Your task to perform on an android device: Clear all items from cart on costco. Search for "alienware aurora" on costco, select the first entry, add it to the cart, then select checkout. Image 0: 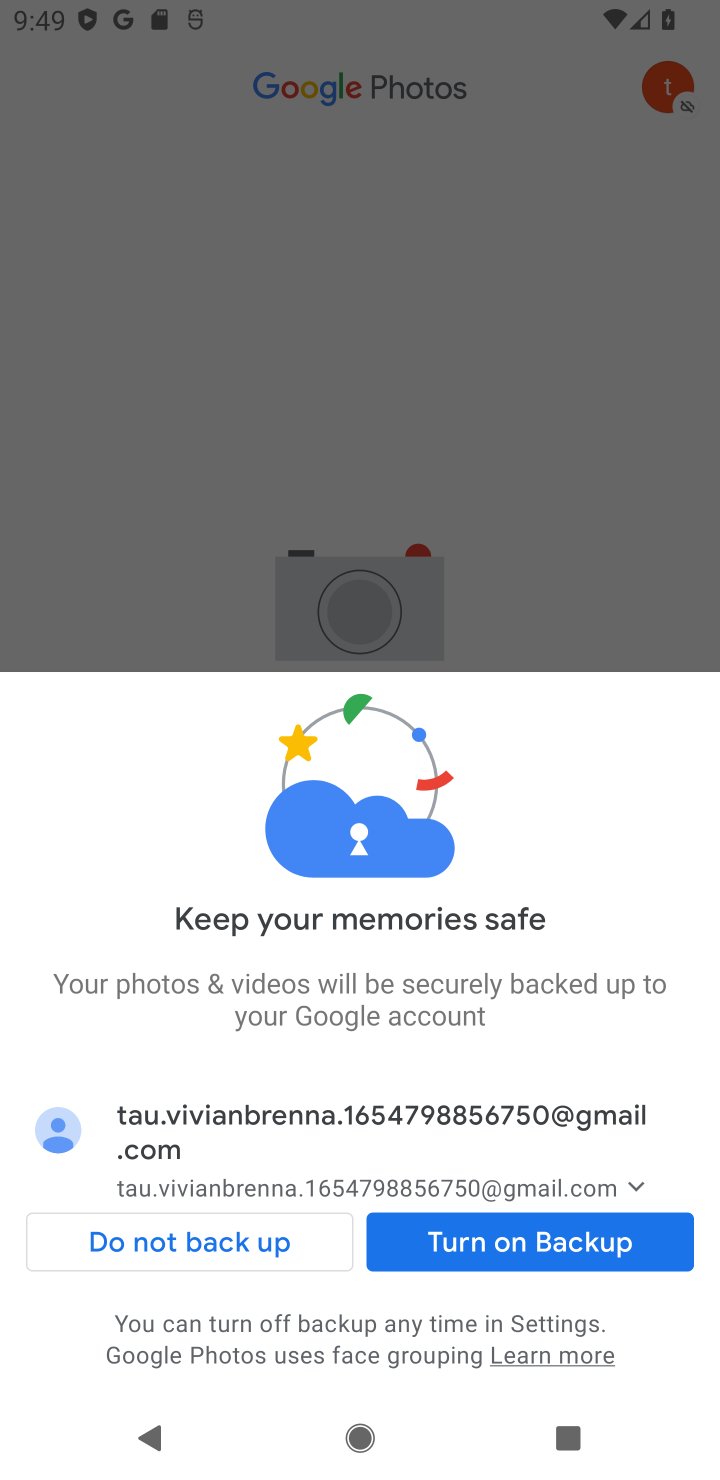
Step 0: press home button
Your task to perform on an android device: Clear all items from cart on costco. Search for "alienware aurora" on costco, select the first entry, add it to the cart, then select checkout. Image 1: 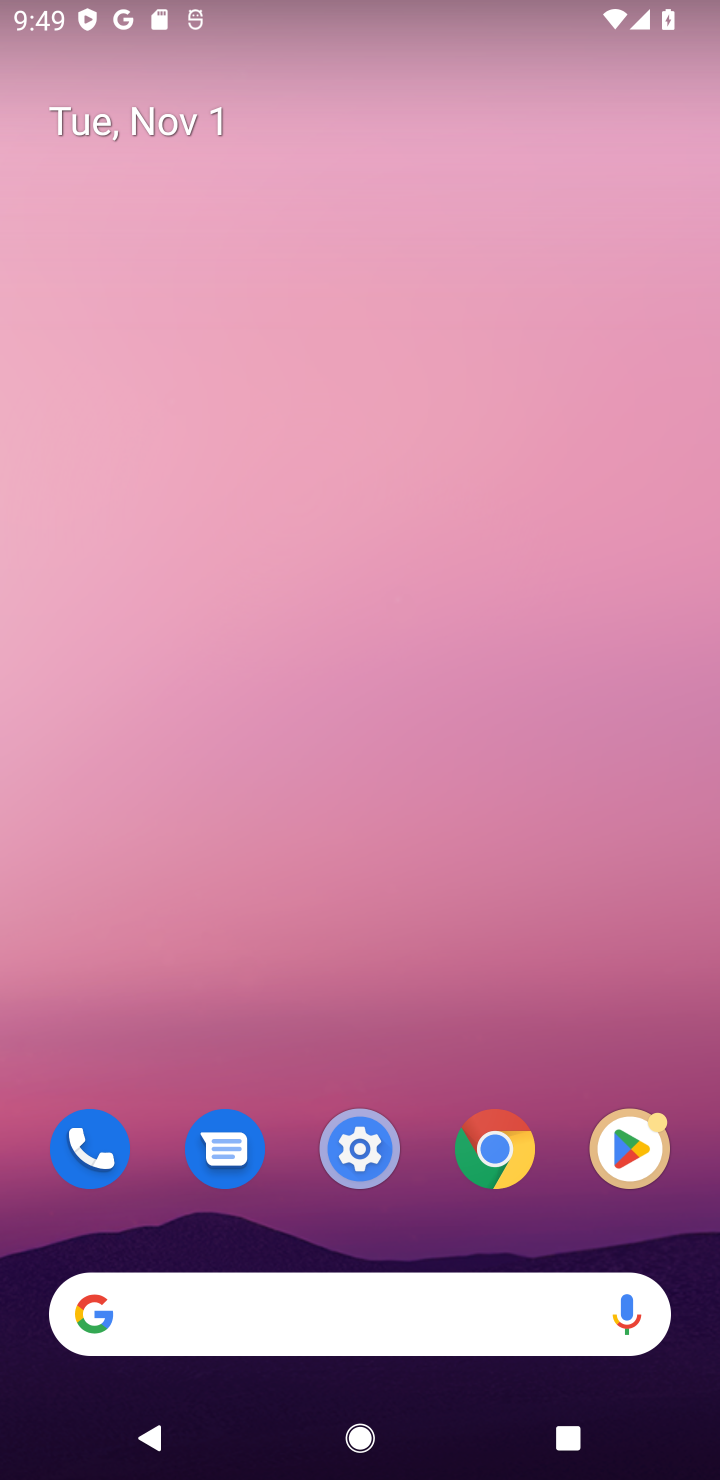
Step 1: click (159, 1311)
Your task to perform on an android device: Clear all items from cart on costco. Search for "alienware aurora" on costco, select the first entry, add it to the cart, then select checkout. Image 2: 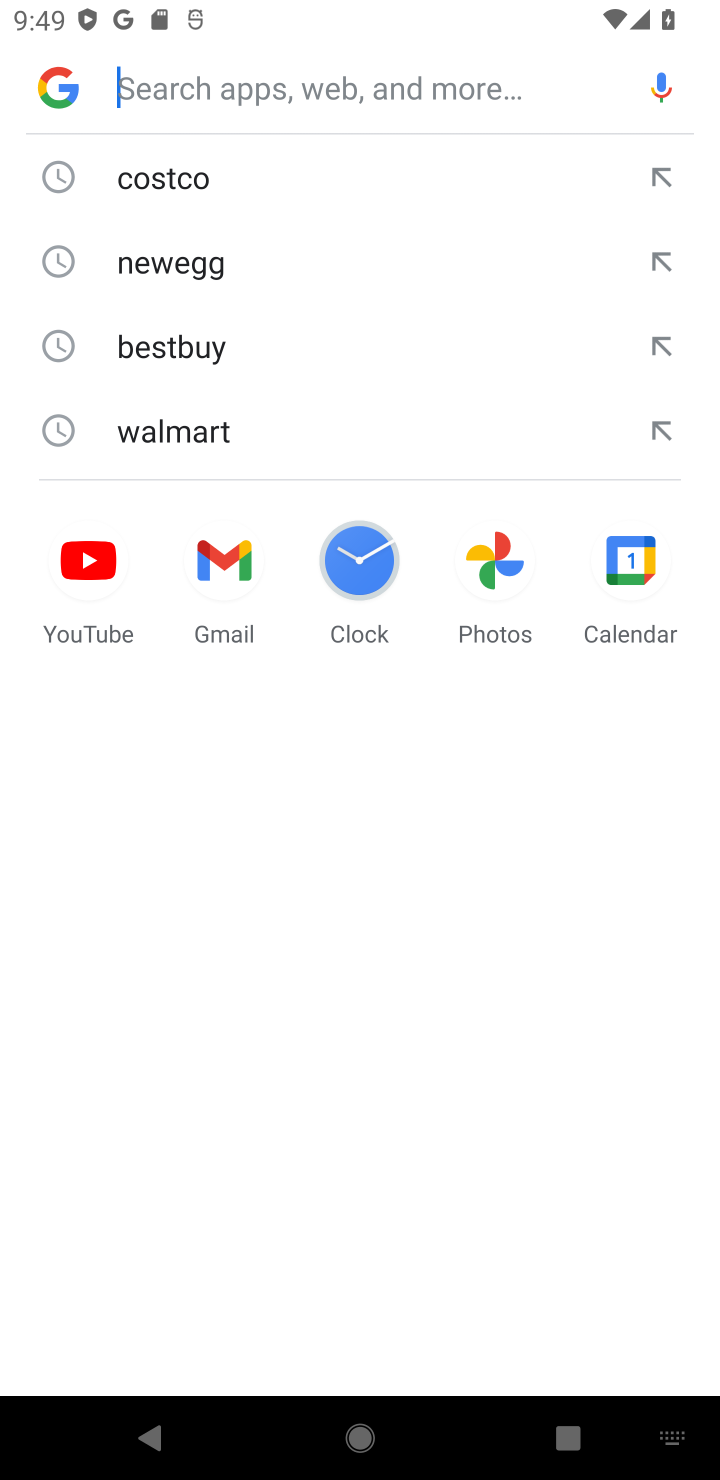
Step 2: type " costco"
Your task to perform on an android device: Clear all items from cart on costco. Search for "alienware aurora" on costco, select the first entry, add it to the cart, then select checkout. Image 3: 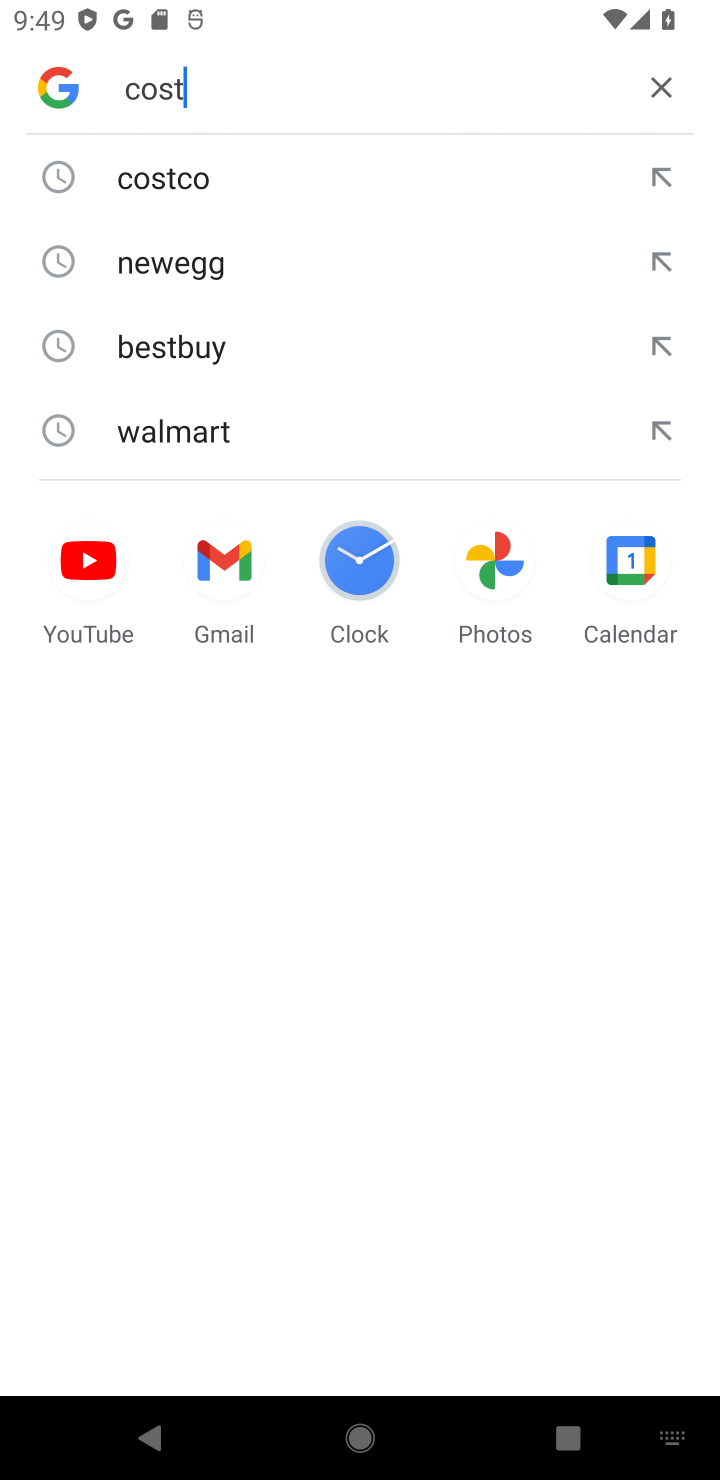
Step 3: press enter
Your task to perform on an android device: Clear all items from cart on costco. Search for "alienware aurora" on costco, select the first entry, add it to the cart, then select checkout. Image 4: 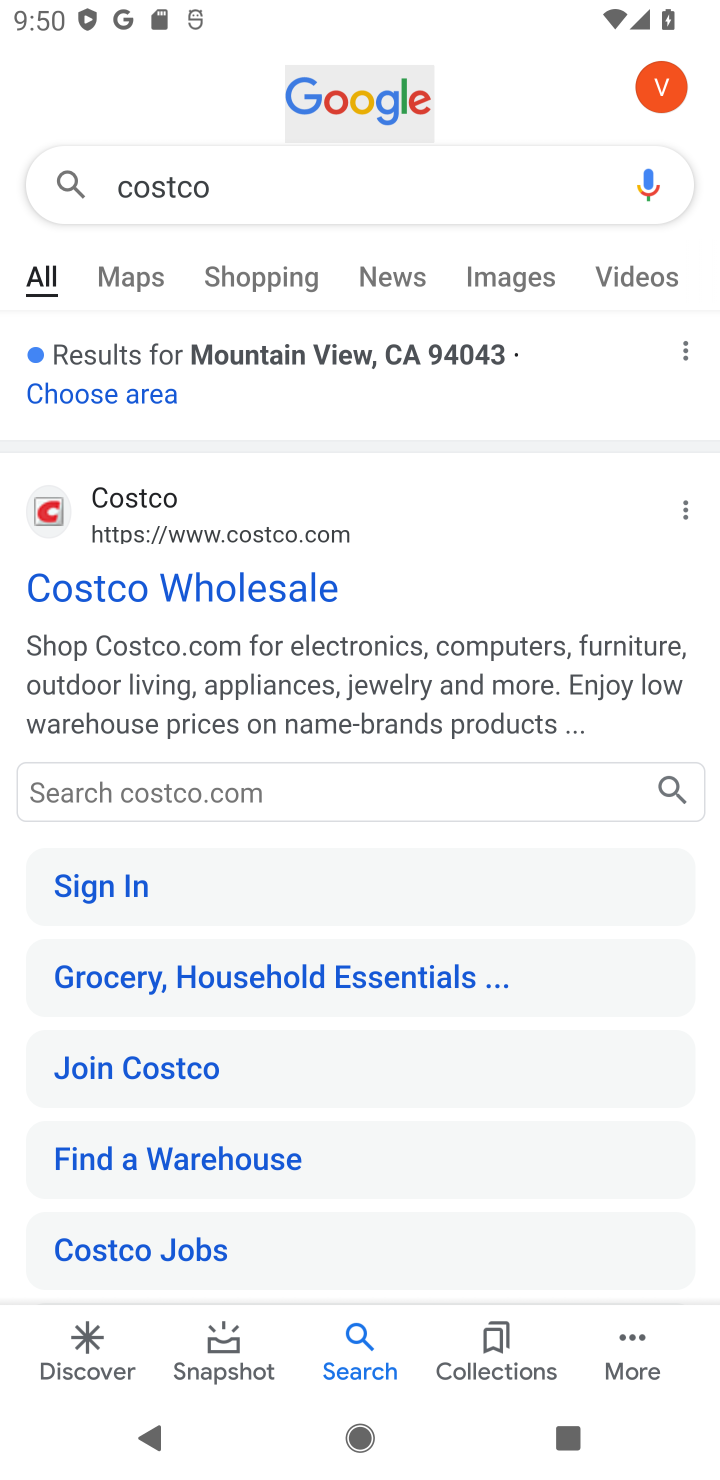
Step 4: click (183, 587)
Your task to perform on an android device: Clear all items from cart on costco. Search for "alienware aurora" on costco, select the first entry, add it to the cart, then select checkout. Image 5: 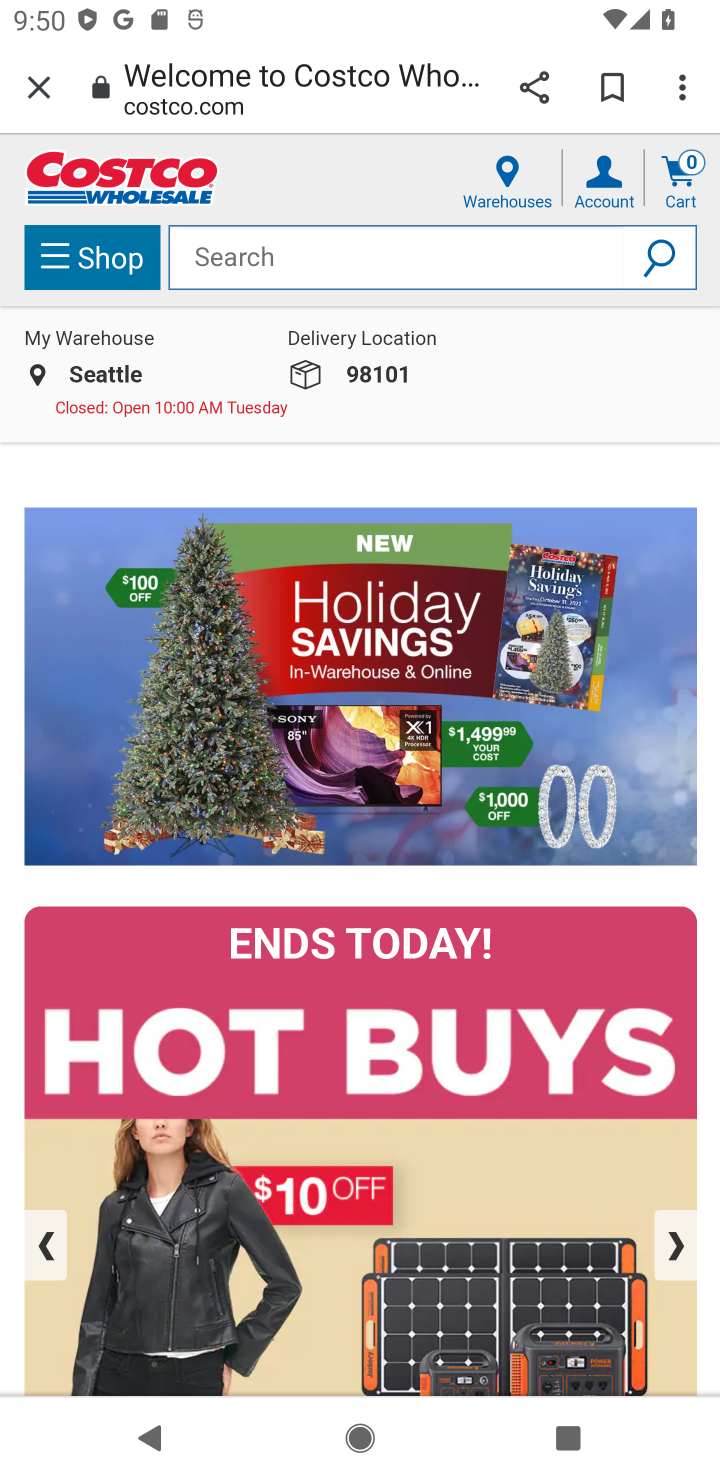
Step 5: click (678, 186)
Your task to perform on an android device: Clear all items from cart on costco. Search for "alienware aurora" on costco, select the first entry, add it to the cart, then select checkout. Image 6: 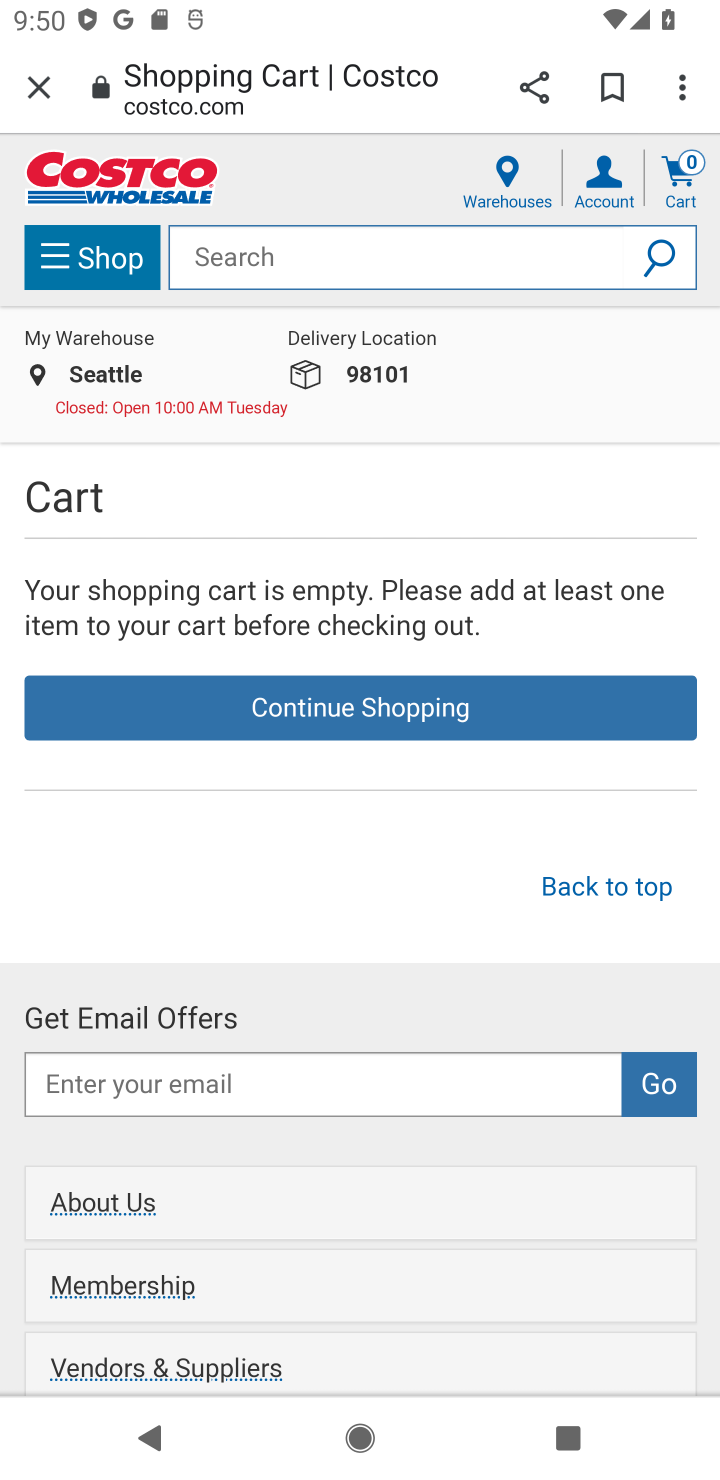
Step 6: click (277, 269)
Your task to perform on an android device: Clear all items from cart on costco. Search for "alienware aurora" on costco, select the first entry, add it to the cart, then select checkout. Image 7: 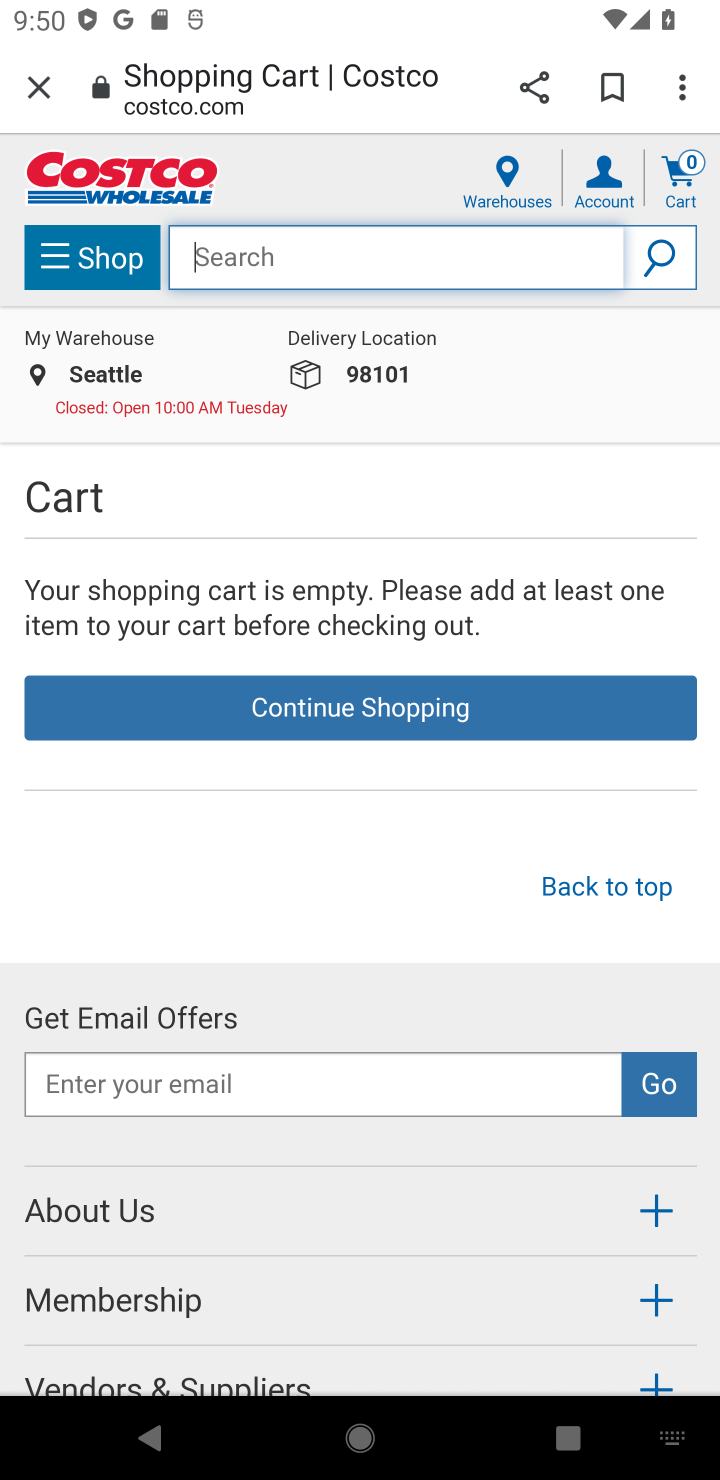
Step 7: type "alienware aurora"
Your task to perform on an android device: Clear all items from cart on costco. Search for "alienware aurora" on costco, select the first entry, add it to the cart, then select checkout. Image 8: 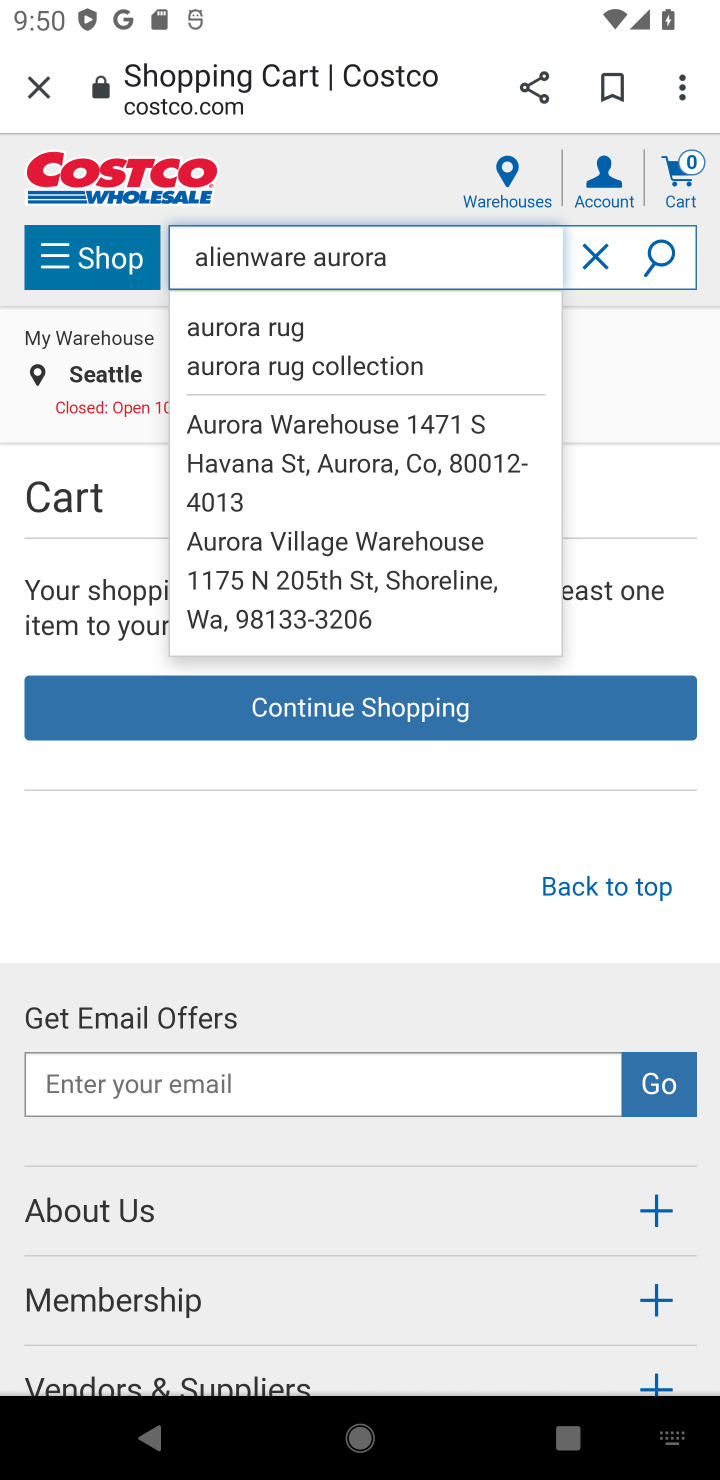
Step 8: click (650, 254)
Your task to perform on an android device: Clear all items from cart on costco. Search for "alienware aurora" on costco, select the first entry, add it to the cart, then select checkout. Image 9: 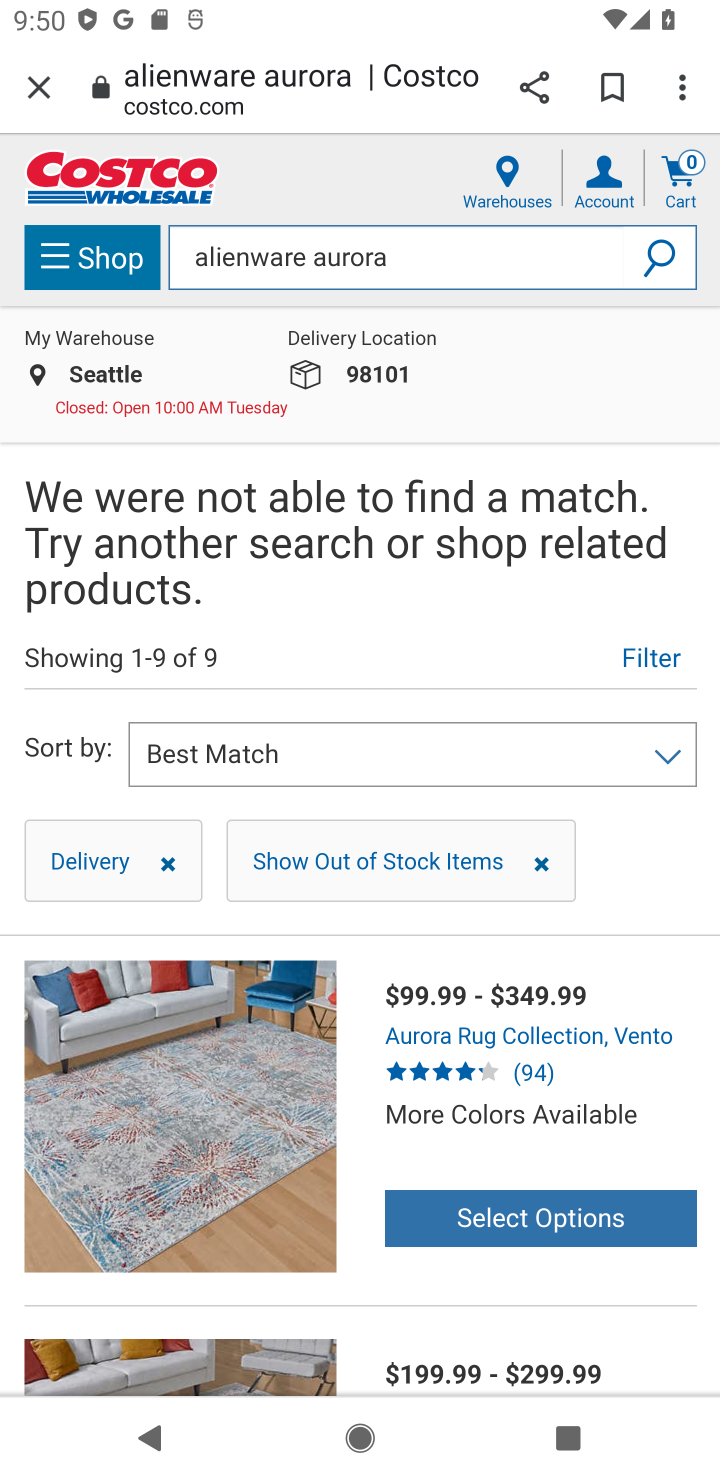
Step 9: task complete